Your task to perform on an android device: Open Amazon Image 0: 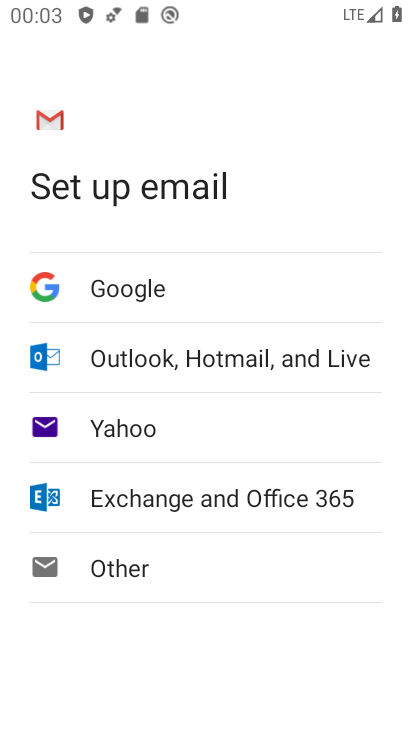
Step 0: press home button
Your task to perform on an android device: Open Amazon Image 1: 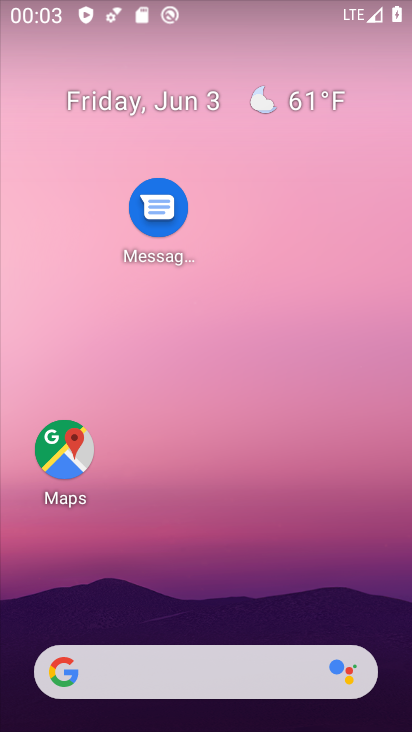
Step 1: drag from (233, 641) to (197, 78)
Your task to perform on an android device: Open Amazon Image 2: 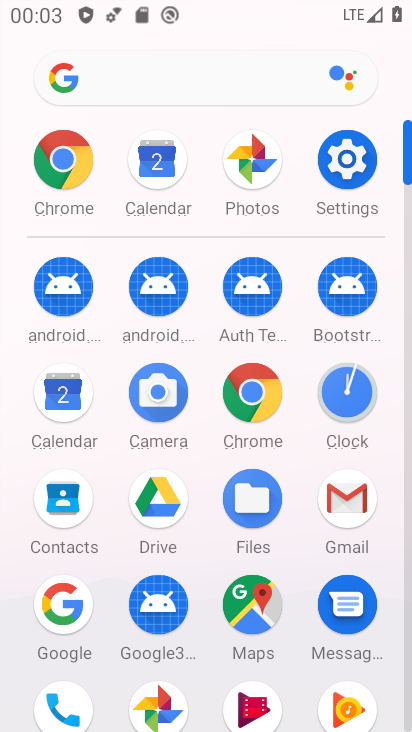
Step 2: click (254, 412)
Your task to perform on an android device: Open Amazon Image 3: 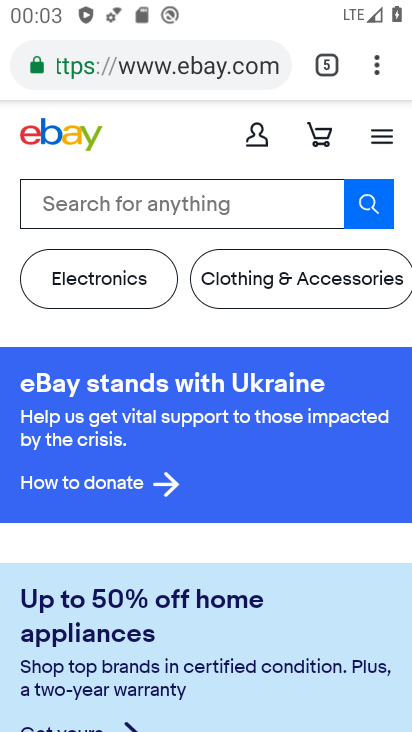
Step 3: click (313, 60)
Your task to perform on an android device: Open Amazon Image 4: 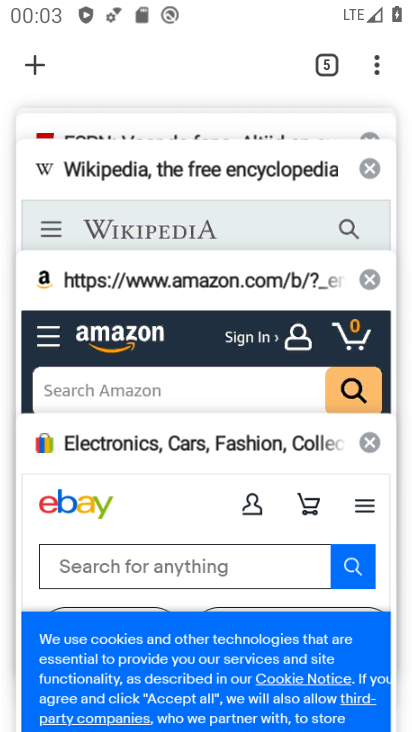
Step 4: click (17, 73)
Your task to perform on an android device: Open Amazon Image 5: 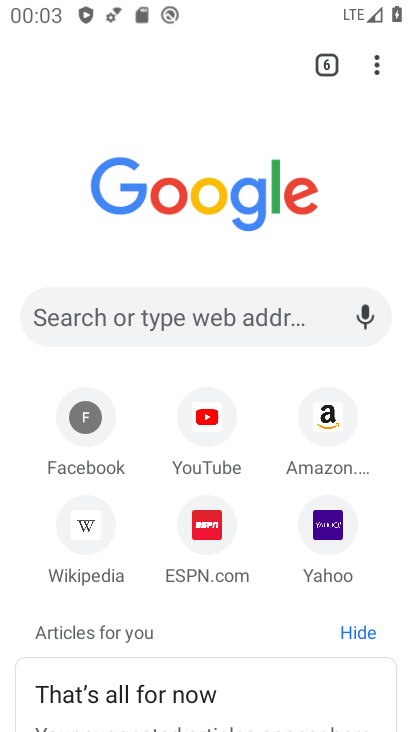
Step 5: click (330, 421)
Your task to perform on an android device: Open Amazon Image 6: 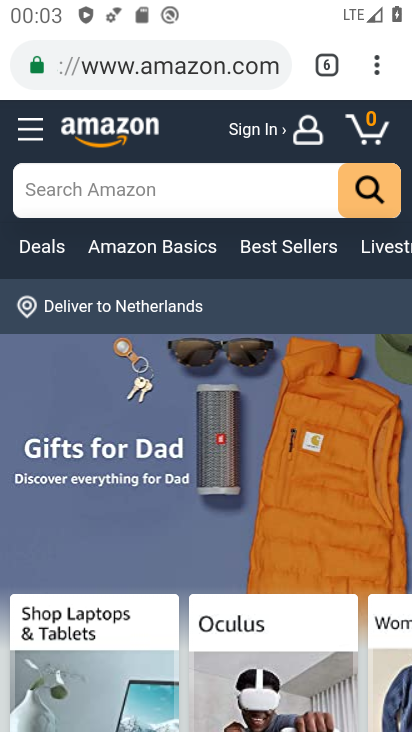
Step 6: task complete